Your task to perform on an android device: What's on the menu at Olive Garden? Image 0: 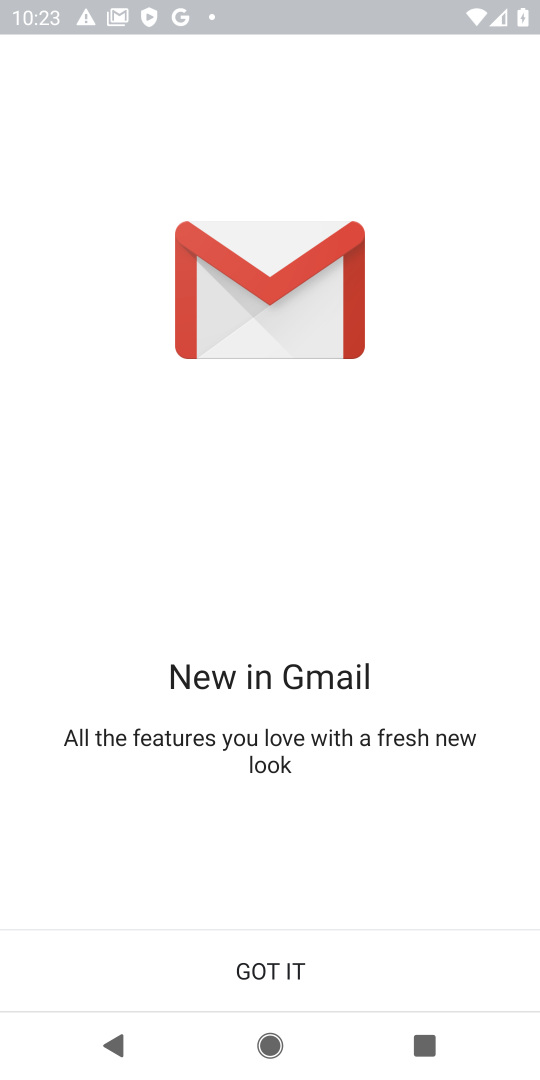
Step 0: press home button
Your task to perform on an android device: What's on the menu at Olive Garden? Image 1: 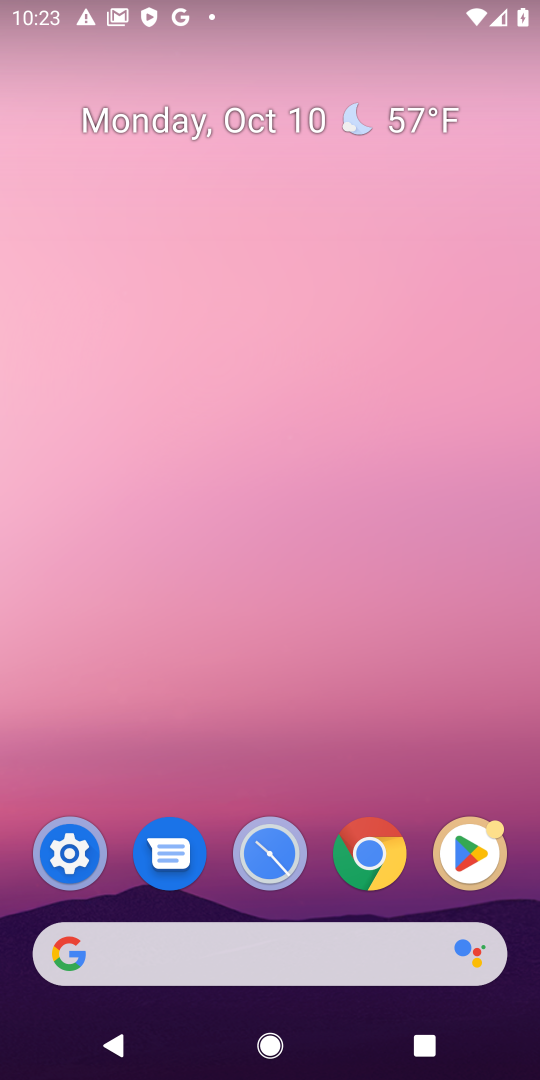
Step 1: click (285, 946)
Your task to perform on an android device: What's on the menu at Olive Garden? Image 2: 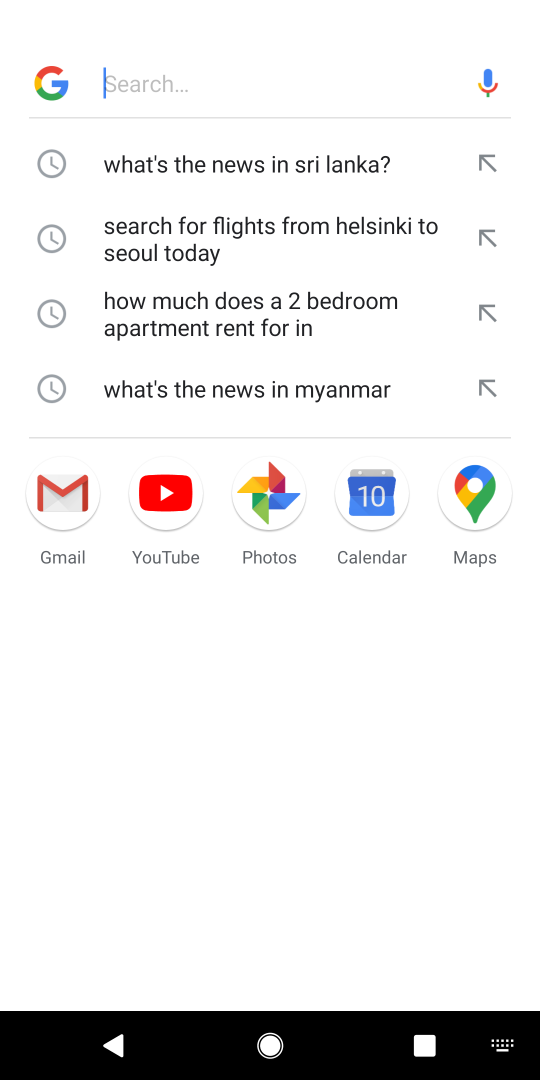
Step 2: press enter
Your task to perform on an android device: What's on the menu at Olive Garden? Image 3: 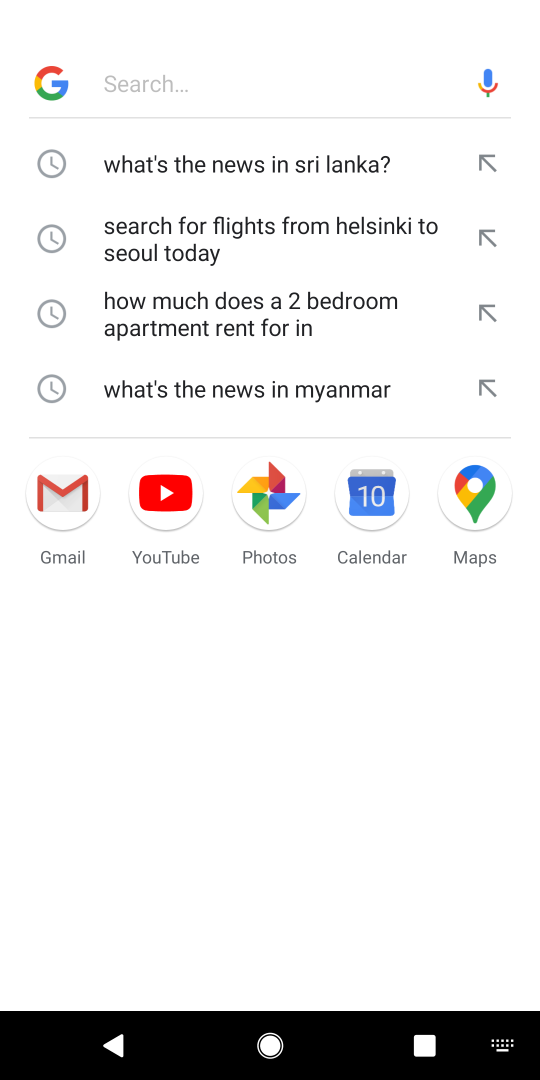
Step 3: type "What's on the menu at Olive Garden"
Your task to perform on an android device: What's on the menu at Olive Garden? Image 4: 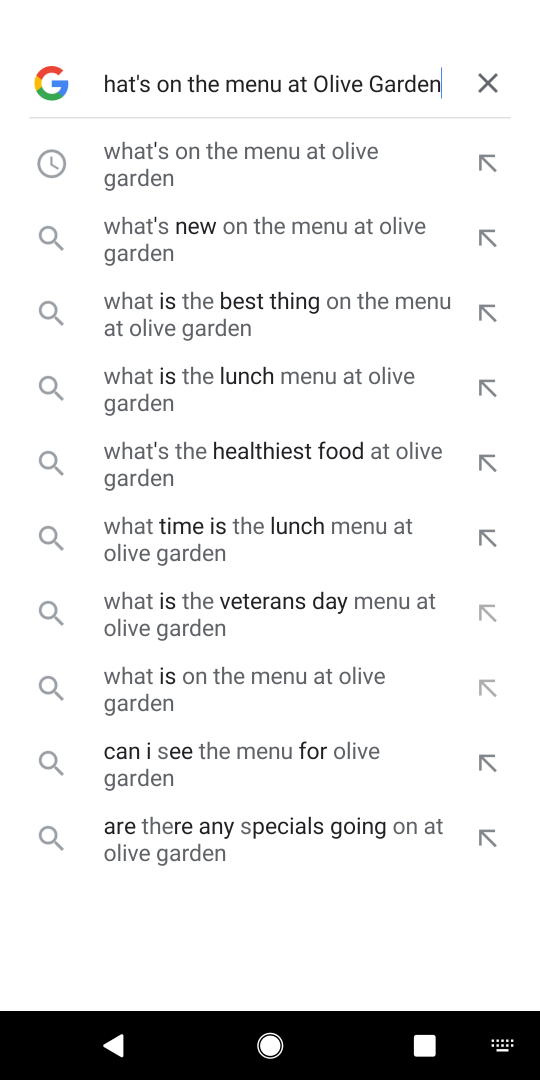
Step 4: press enter
Your task to perform on an android device: What's on the menu at Olive Garden? Image 5: 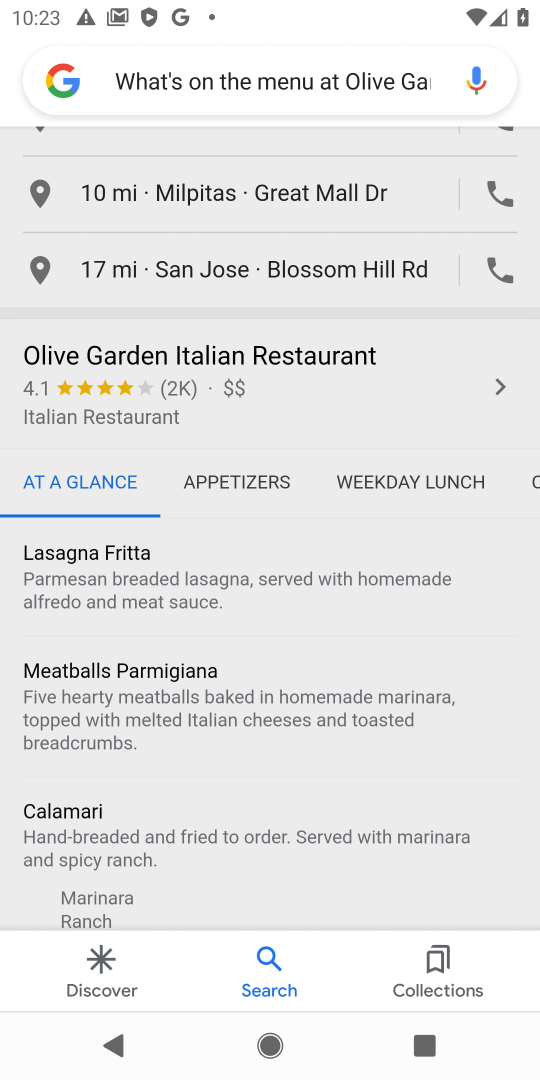
Step 5: drag from (319, 738) to (339, 420)
Your task to perform on an android device: What's on the menu at Olive Garden? Image 6: 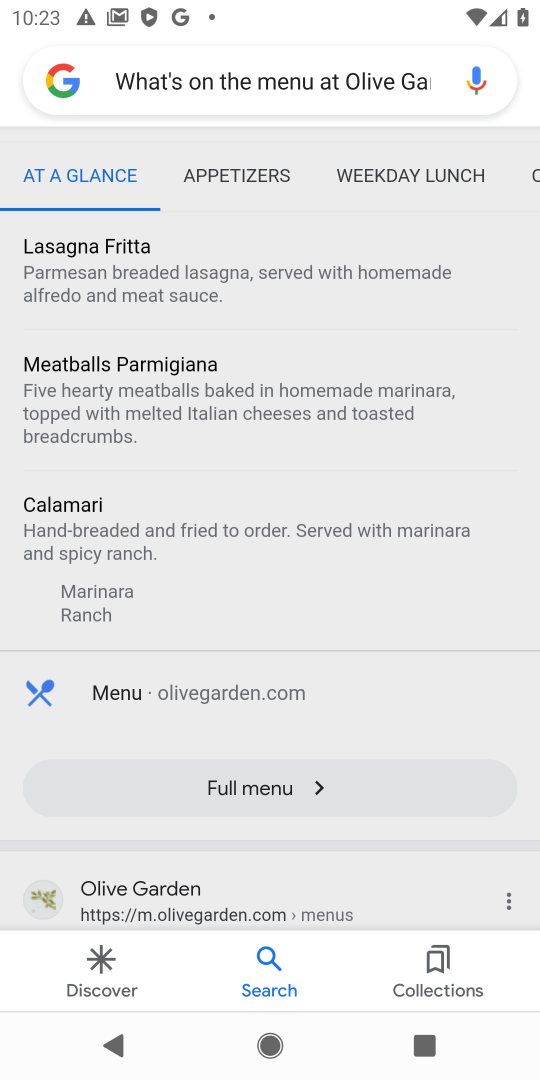
Step 6: click (277, 789)
Your task to perform on an android device: What's on the menu at Olive Garden? Image 7: 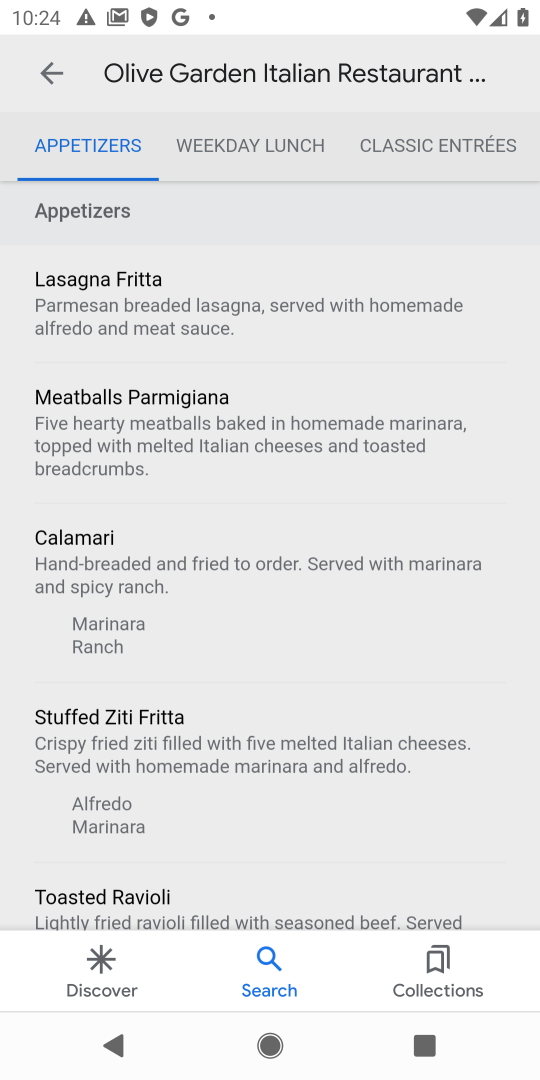
Step 7: task complete